Your task to perform on an android device: turn off translation in the chrome app Image 0: 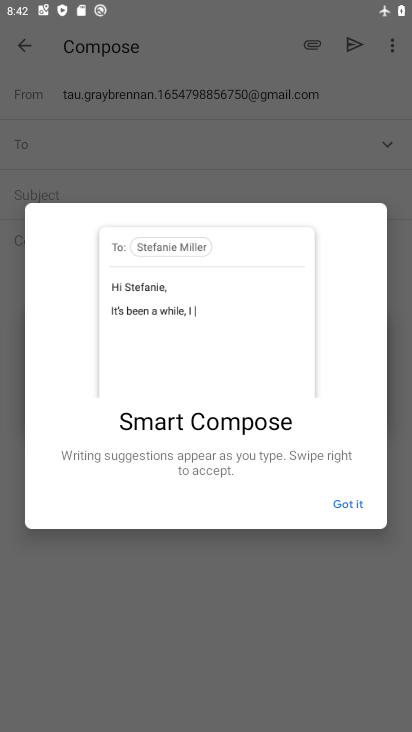
Step 0: click (327, 513)
Your task to perform on an android device: turn off translation in the chrome app Image 1: 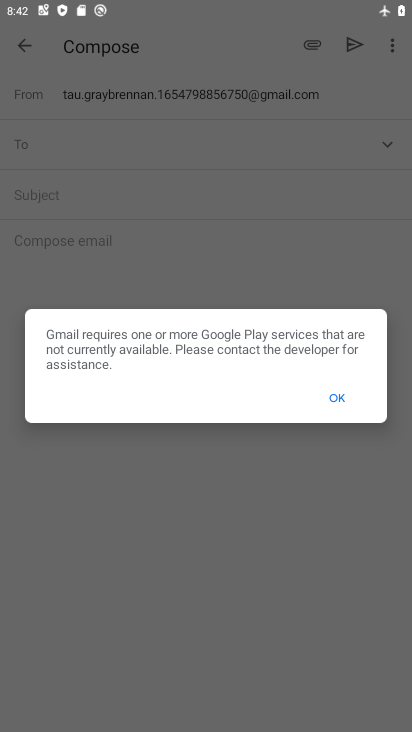
Step 1: click (335, 389)
Your task to perform on an android device: turn off translation in the chrome app Image 2: 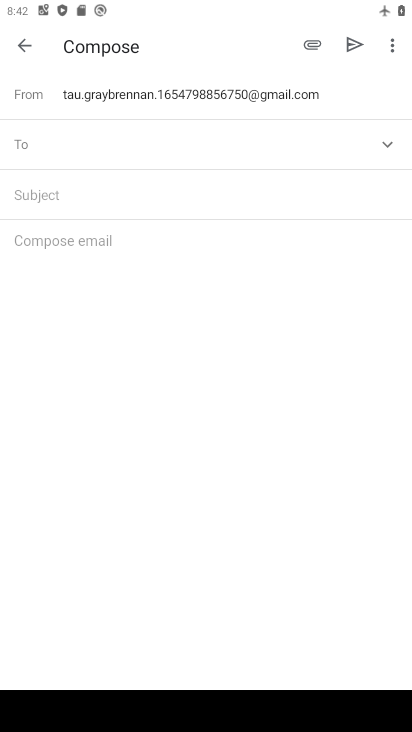
Step 2: click (30, 46)
Your task to perform on an android device: turn off translation in the chrome app Image 3: 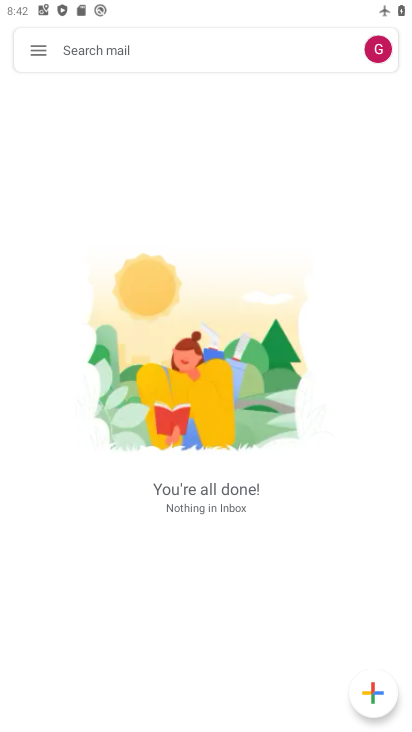
Step 3: click (33, 45)
Your task to perform on an android device: turn off translation in the chrome app Image 4: 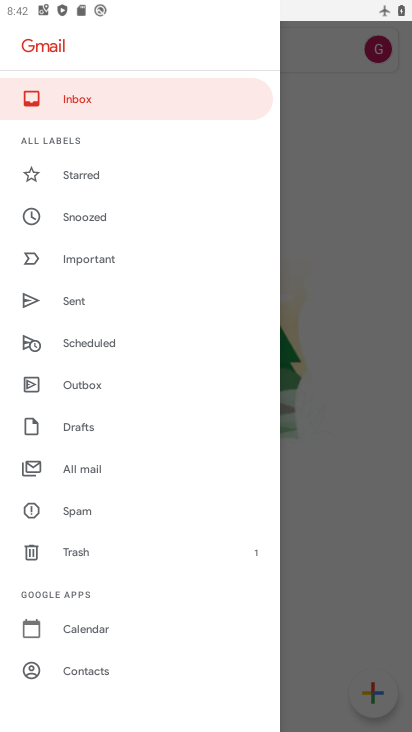
Step 4: press home button
Your task to perform on an android device: turn off translation in the chrome app Image 5: 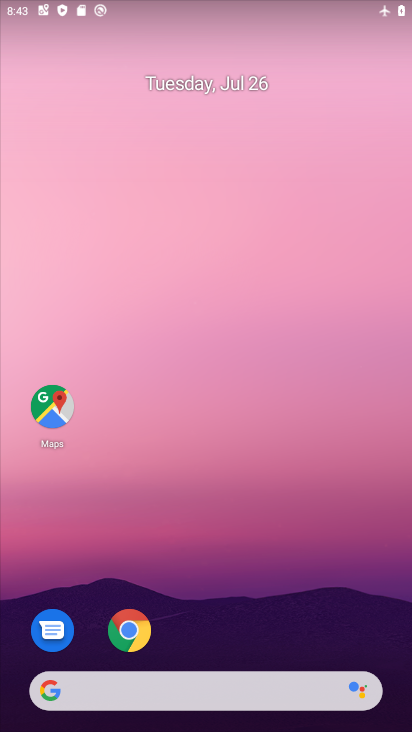
Step 5: click (141, 643)
Your task to perform on an android device: turn off translation in the chrome app Image 6: 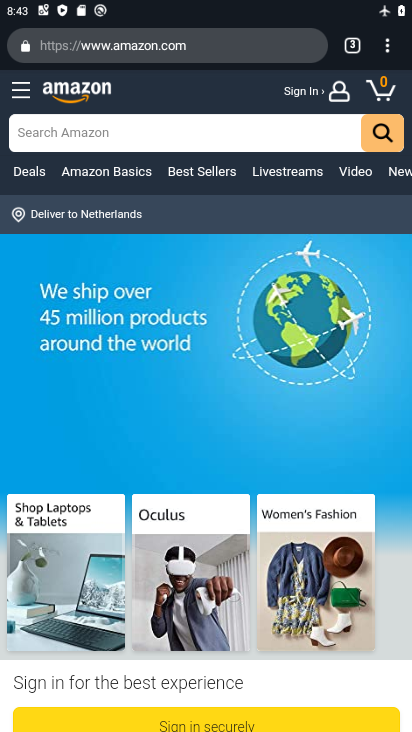
Step 6: click (390, 38)
Your task to perform on an android device: turn off translation in the chrome app Image 7: 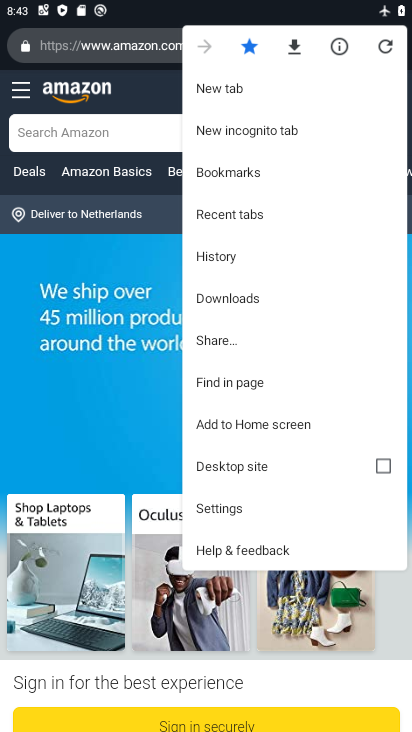
Step 7: click (262, 509)
Your task to perform on an android device: turn off translation in the chrome app Image 8: 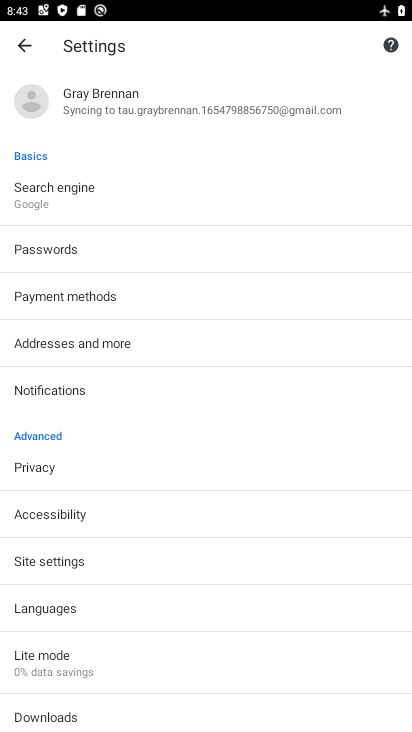
Step 8: click (97, 616)
Your task to perform on an android device: turn off translation in the chrome app Image 9: 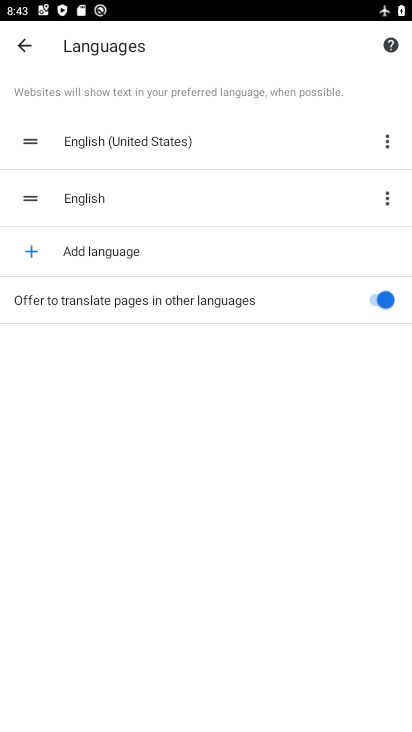
Step 9: click (369, 316)
Your task to perform on an android device: turn off translation in the chrome app Image 10: 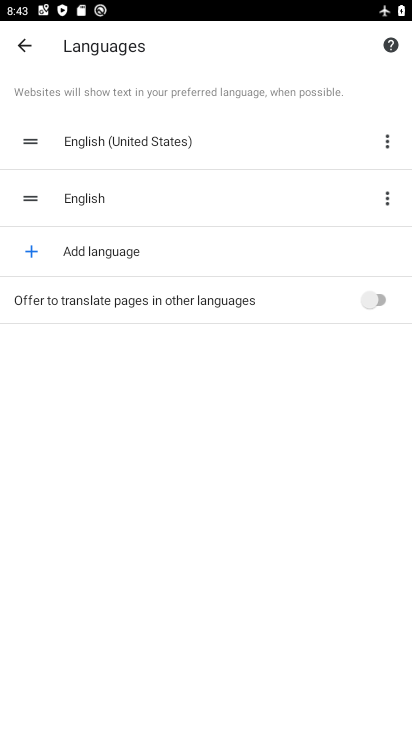
Step 10: task complete